Your task to perform on an android device: uninstall "LinkedIn" Image 0: 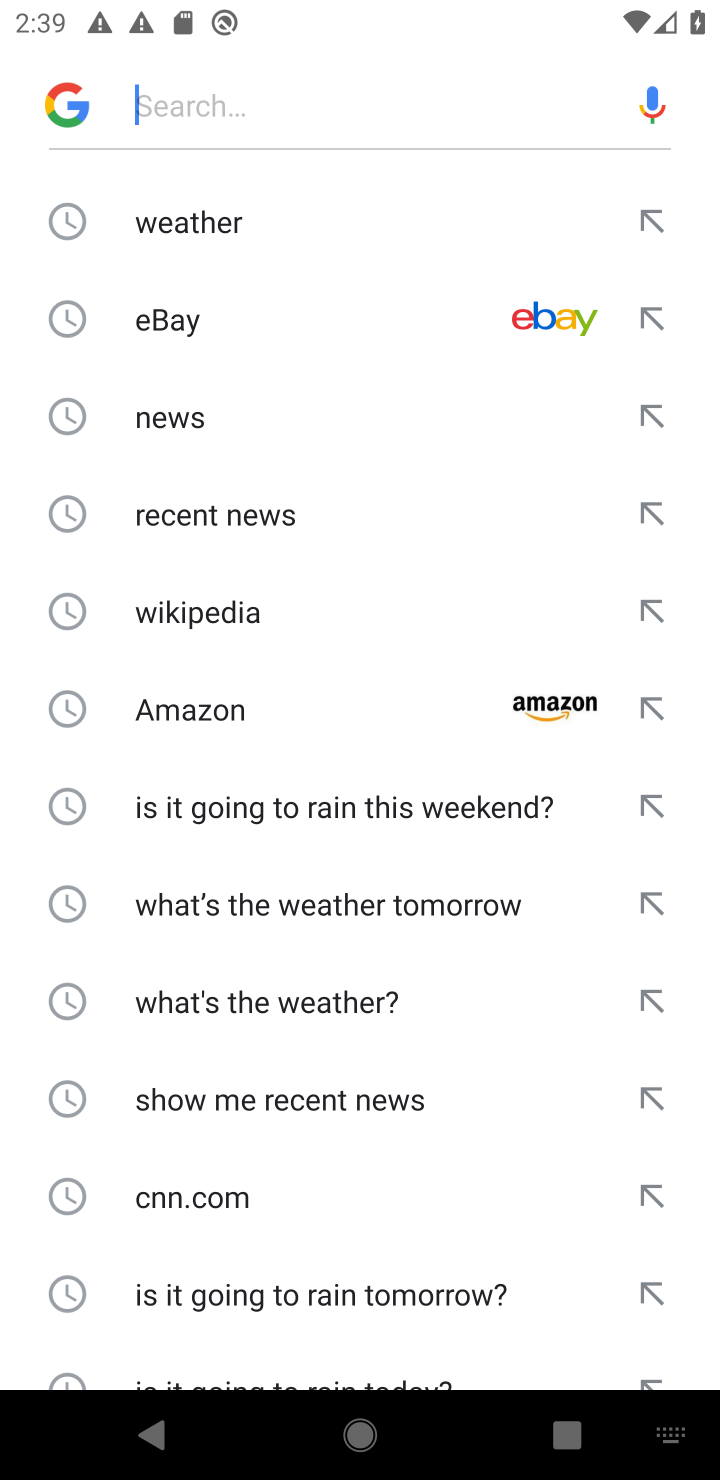
Step 0: press home button
Your task to perform on an android device: uninstall "LinkedIn" Image 1: 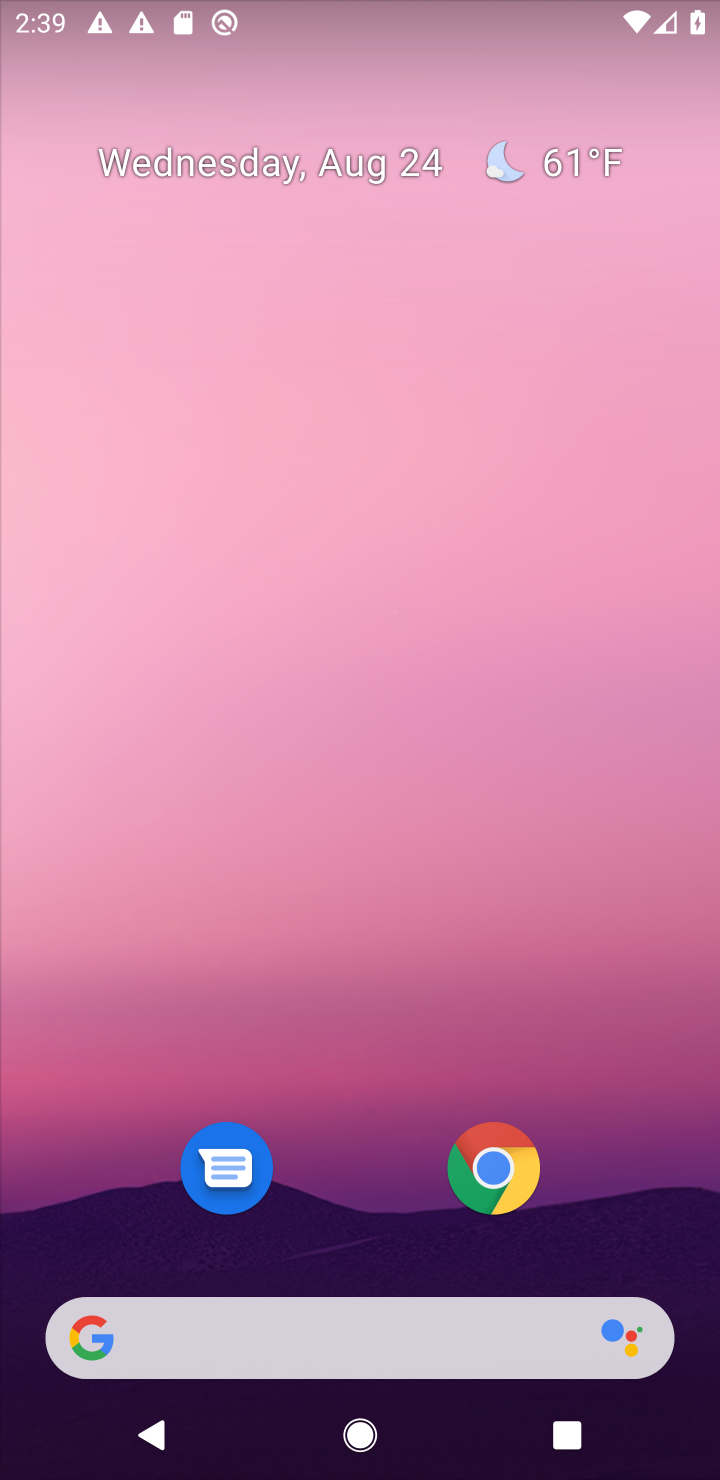
Step 1: drag from (678, 1254) to (615, 281)
Your task to perform on an android device: uninstall "LinkedIn" Image 2: 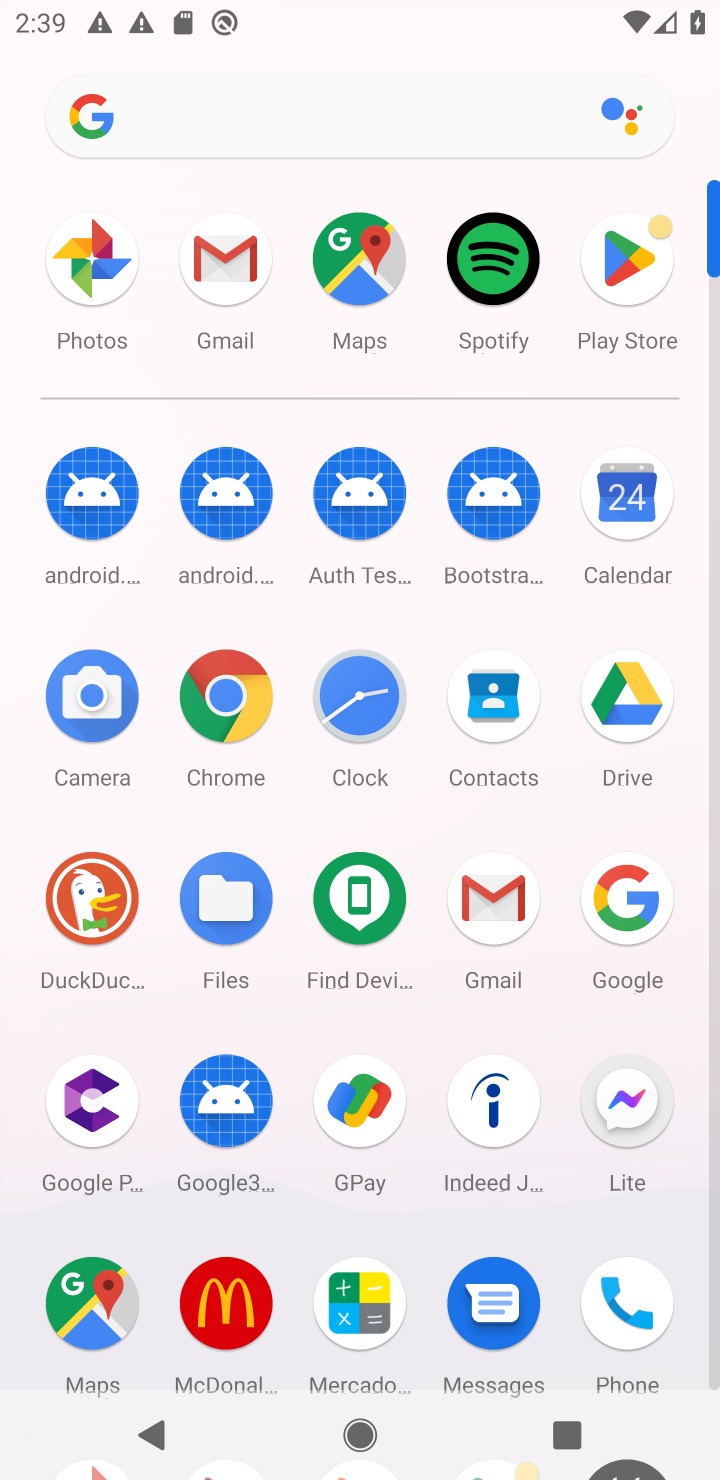
Step 2: drag from (572, 1220) to (561, 496)
Your task to perform on an android device: uninstall "LinkedIn" Image 3: 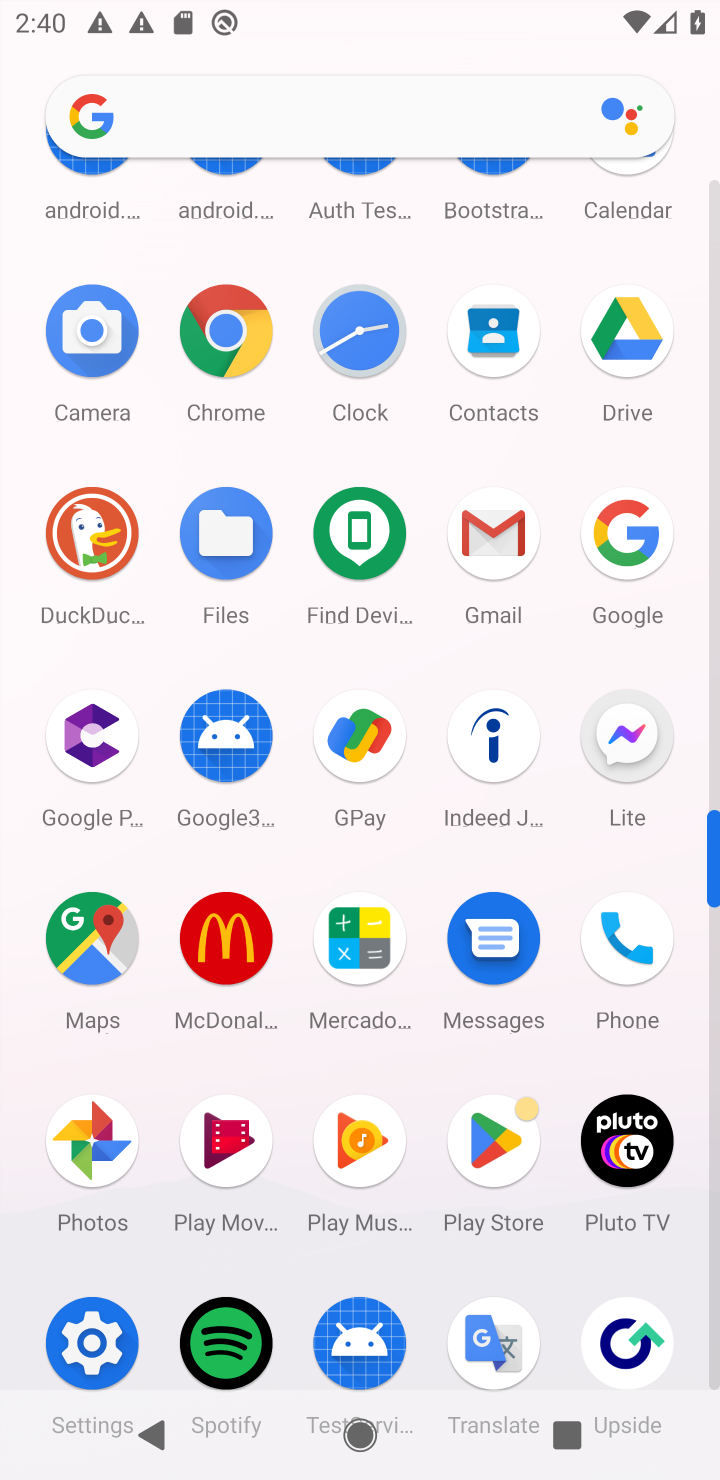
Step 3: click (498, 1145)
Your task to perform on an android device: uninstall "LinkedIn" Image 4: 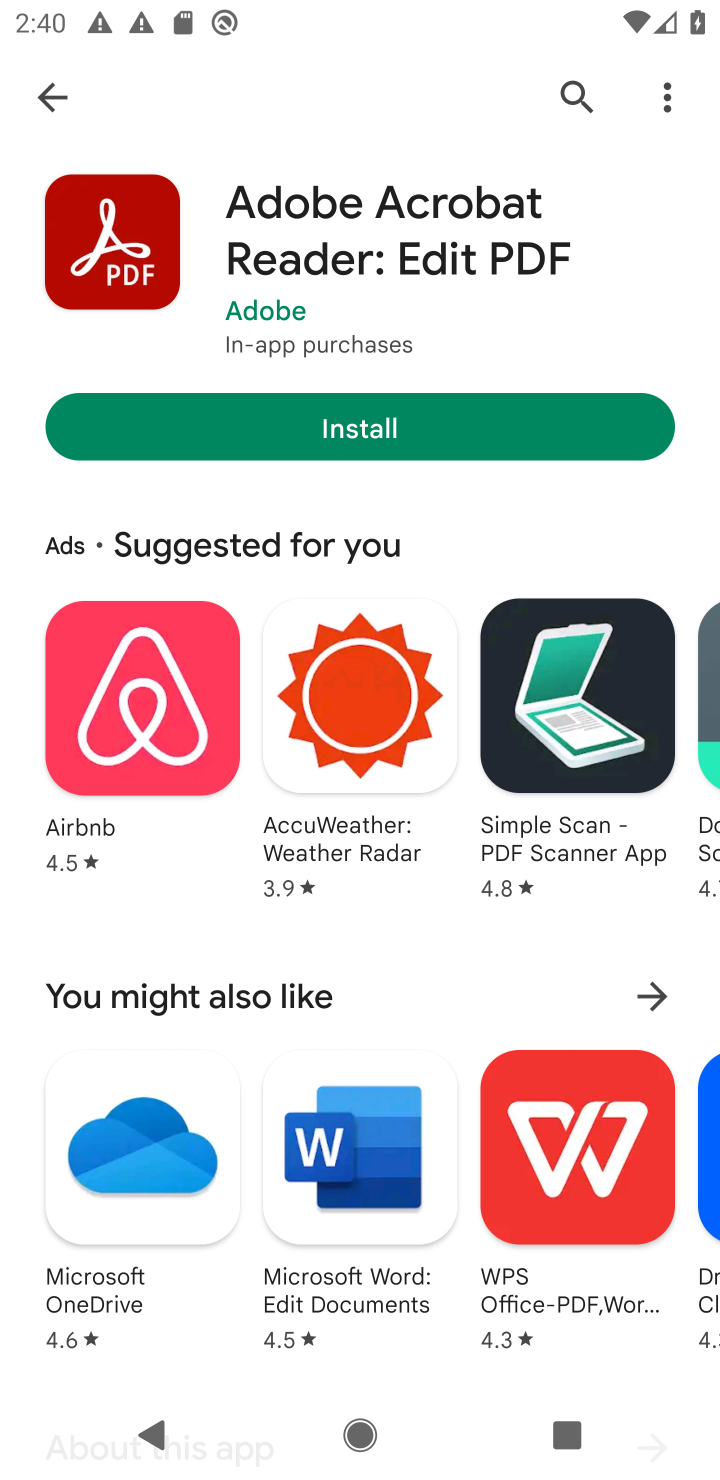
Step 4: click (576, 88)
Your task to perform on an android device: uninstall "LinkedIn" Image 5: 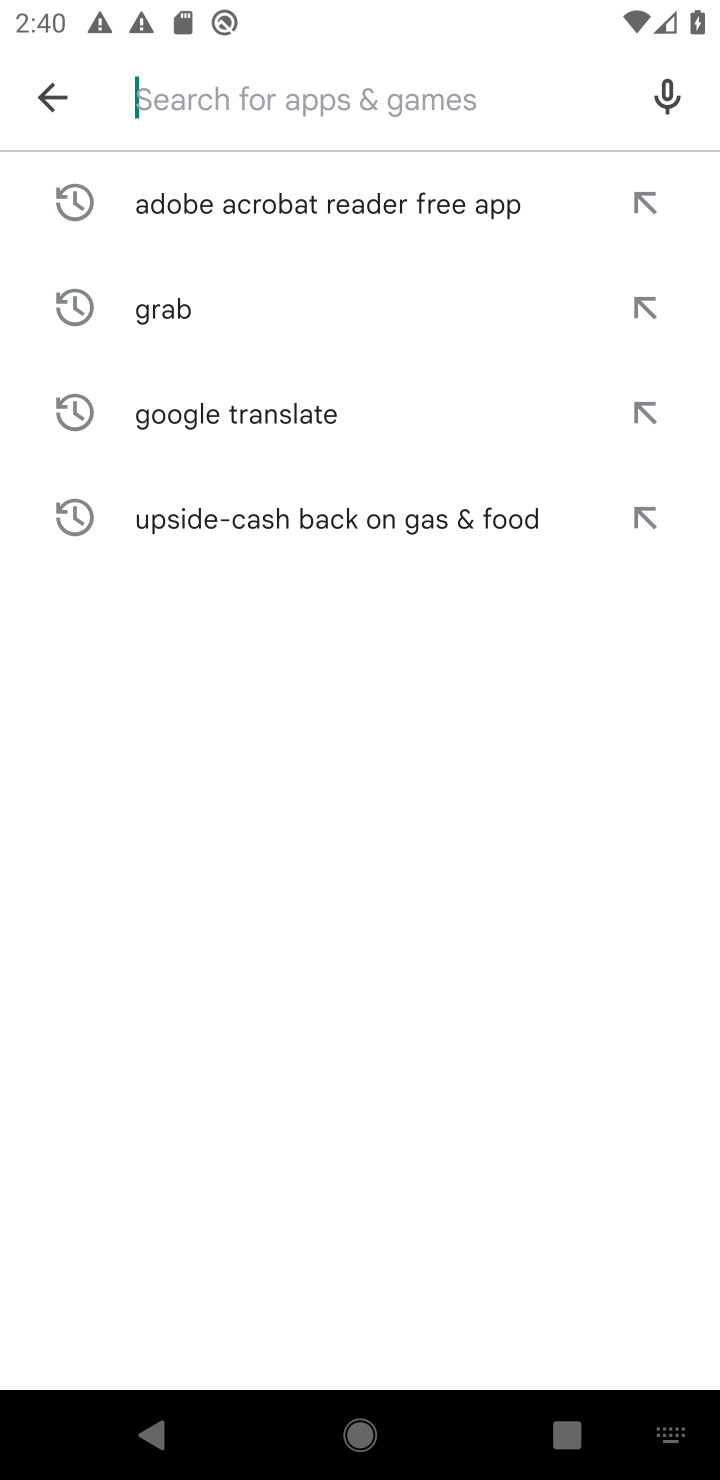
Step 5: type "LinkedIn"
Your task to perform on an android device: uninstall "LinkedIn" Image 6: 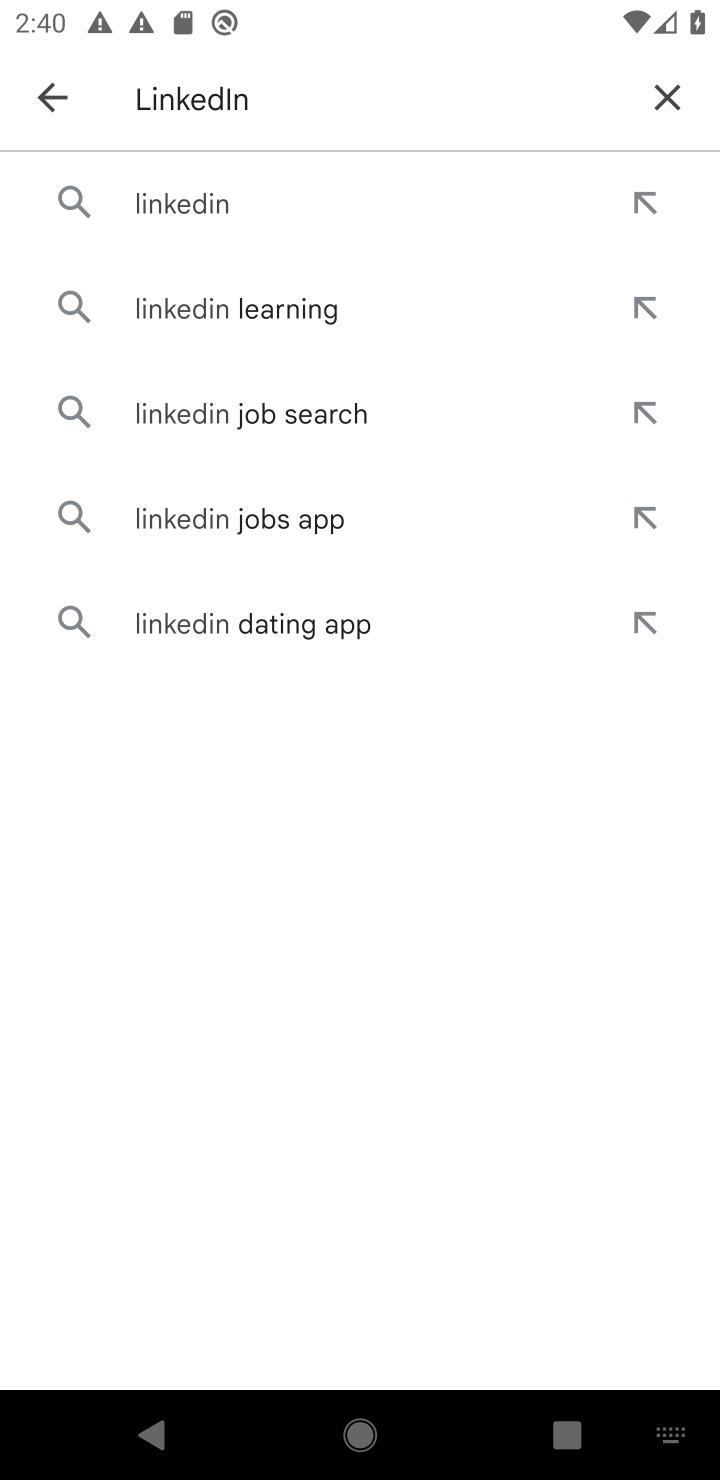
Step 6: click (187, 189)
Your task to perform on an android device: uninstall "LinkedIn" Image 7: 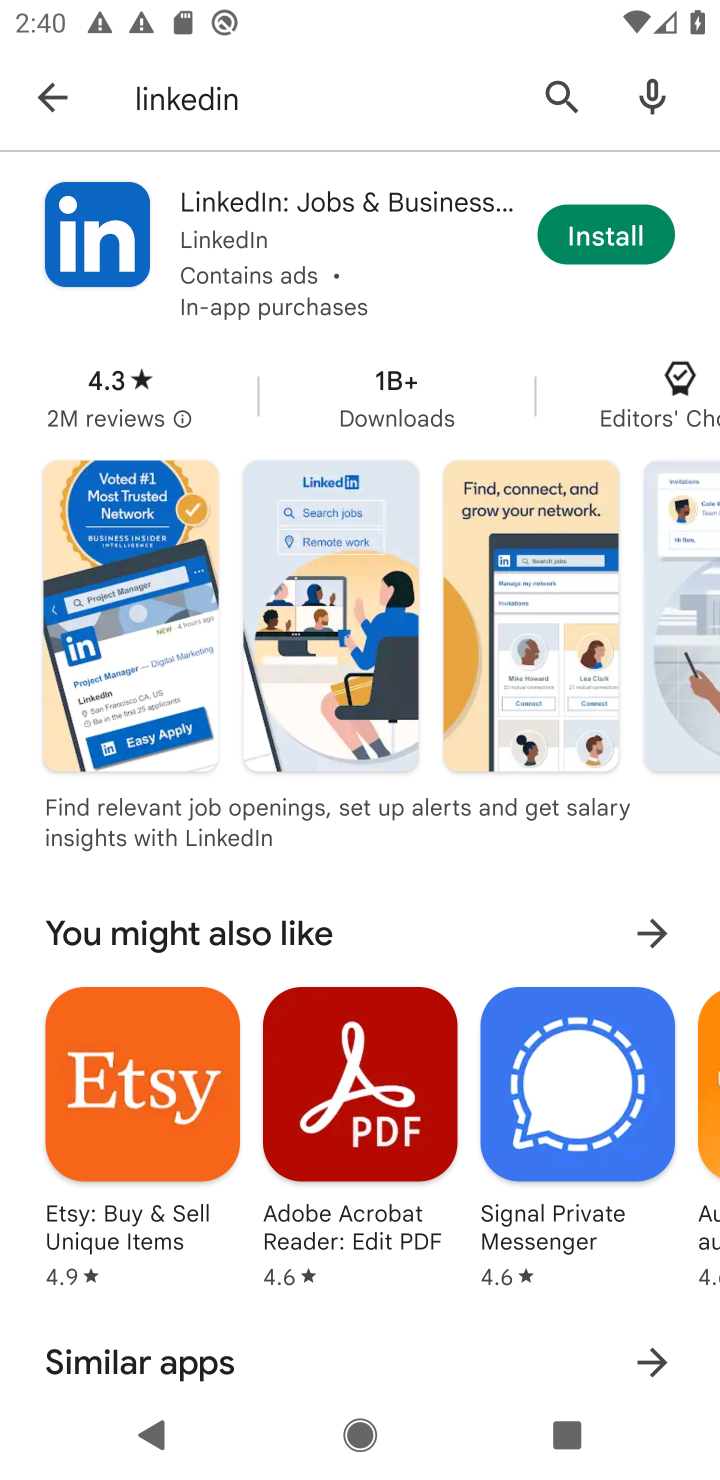
Step 7: click (187, 189)
Your task to perform on an android device: uninstall "LinkedIn" Image 8: 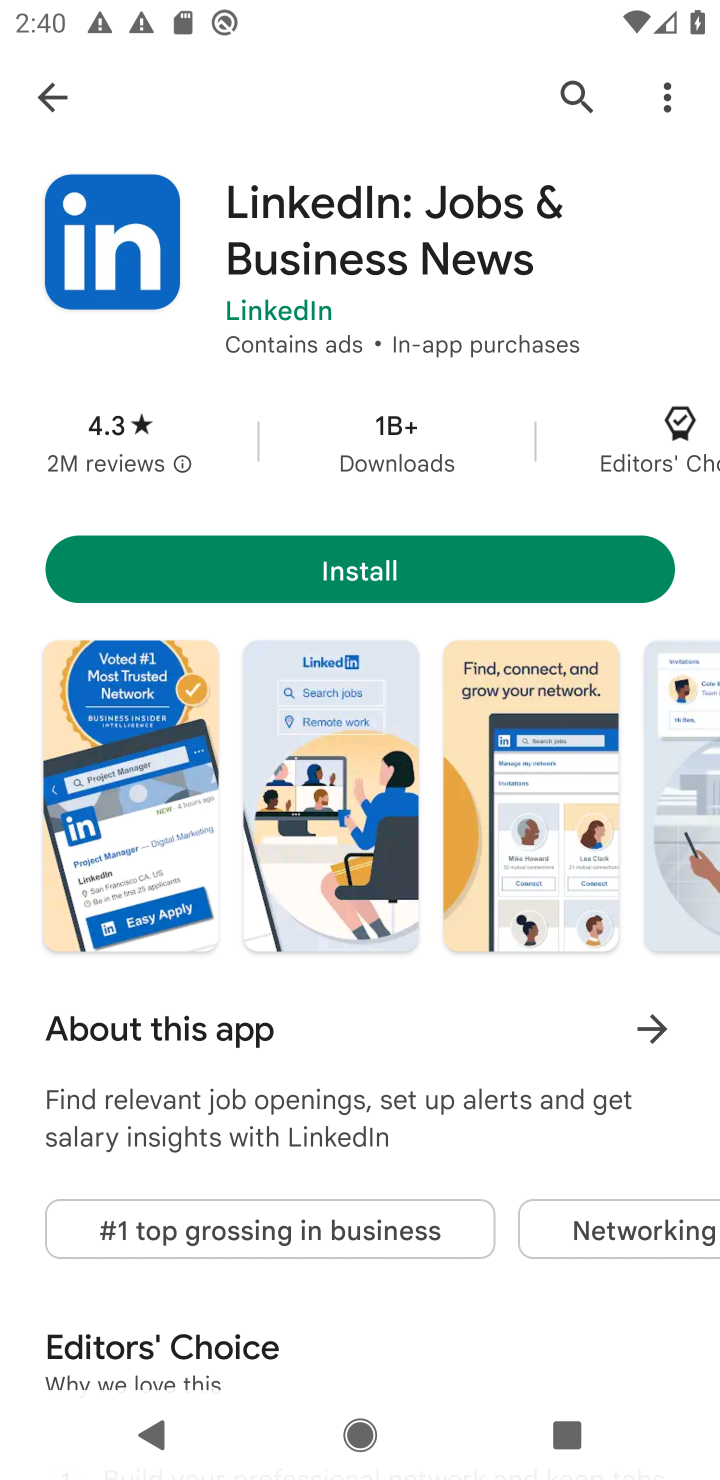
Step 8: task complete